Your task to perform on an android device: Open Chrome and go to settings Image 0: 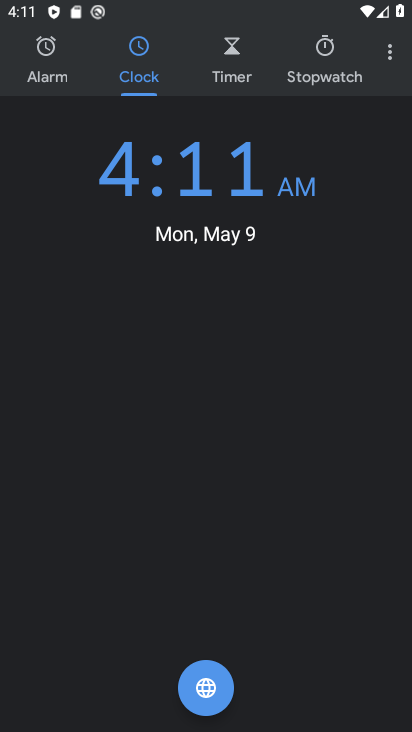
Step 0: press back button
Your task to perform on an android device: Open Chrome and go to settings Image 1: 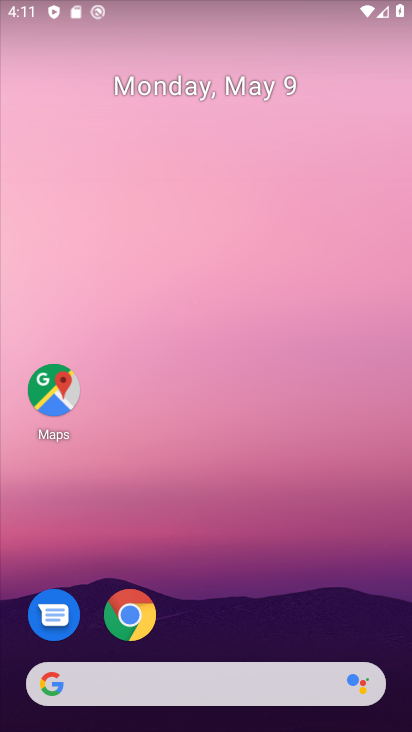
Step 1: click (150, 616)
Your task to perform on an android device: Open Chrome and go to settings Image 2: 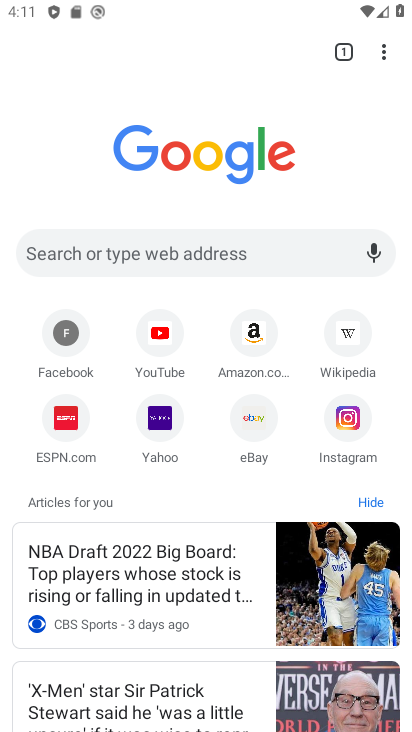
Step 2: task complete